Your task to perform on an android device: Go to Maps Image 0: 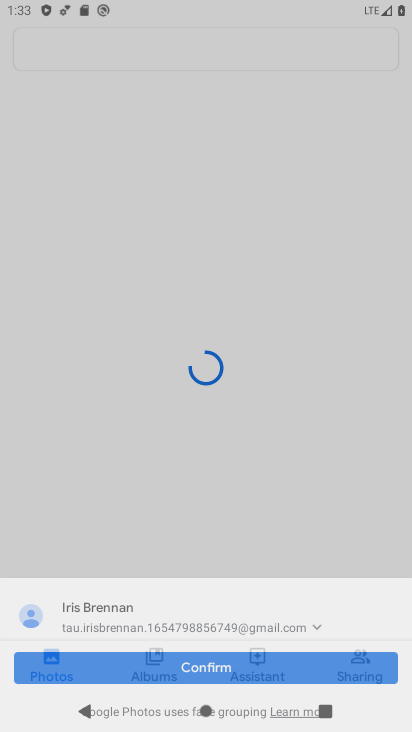
Step 0: press home button
Your task to perform on an android device: Go to Maps Image 1: 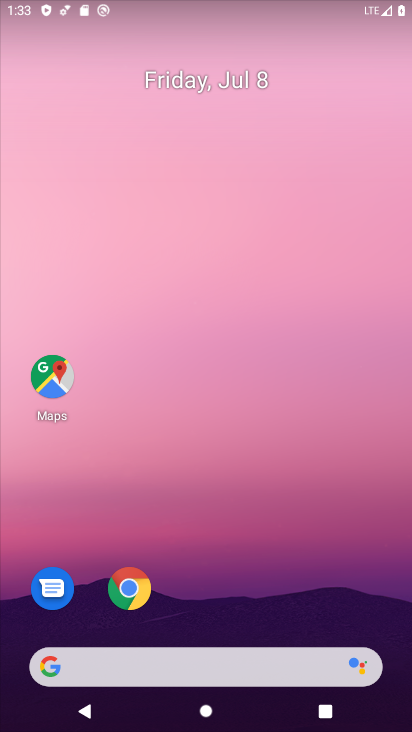
Step 1: click (63, 377)
Your task to perform on an android device: Go to Maps Image 2: 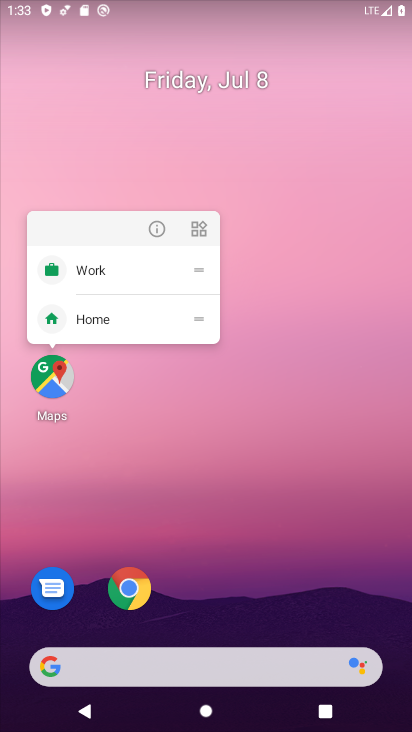
Step 2: click (57, 372)
Your task to perform on an android device: Go to Maps Image 3: 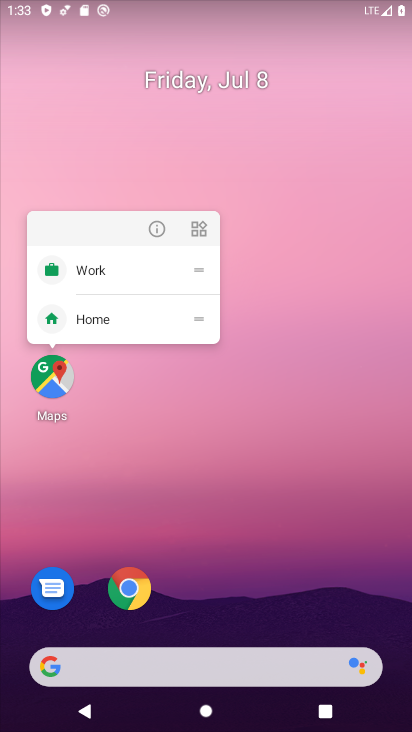
Step 3: click (52, 382)
Your task to perform on an android device: Go to Maps Image 4: 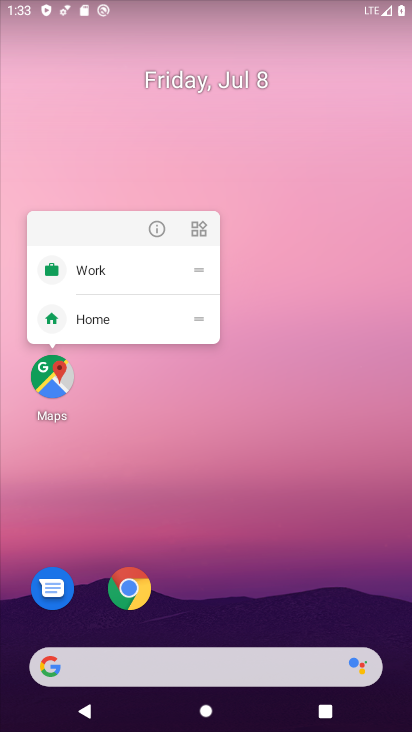
Step 4: click (59, 374)
Your task to perform on an android device: Go to Maps Image 5: 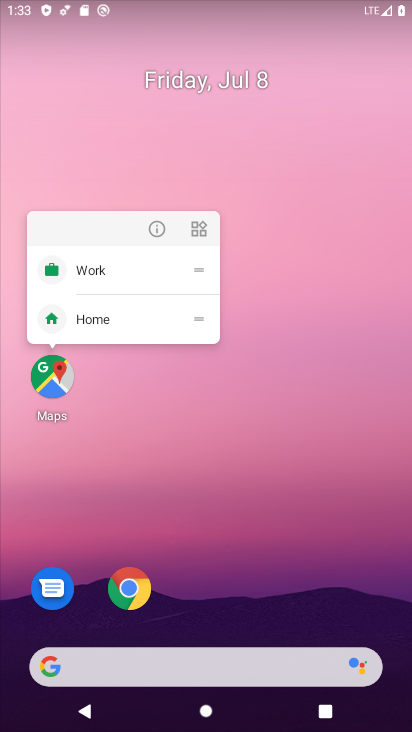
Step 5: click (59, 374)
Your task to perform on an android device: Go to Maps Image 6: 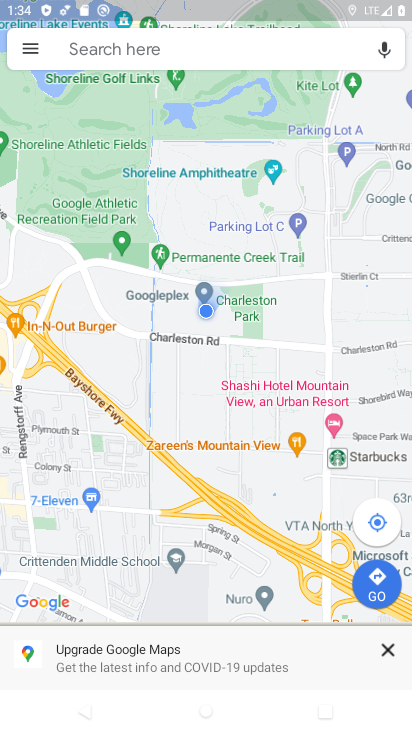
Step 6: task complete